Your task to perform on an android device: What's the weather? Image 0: 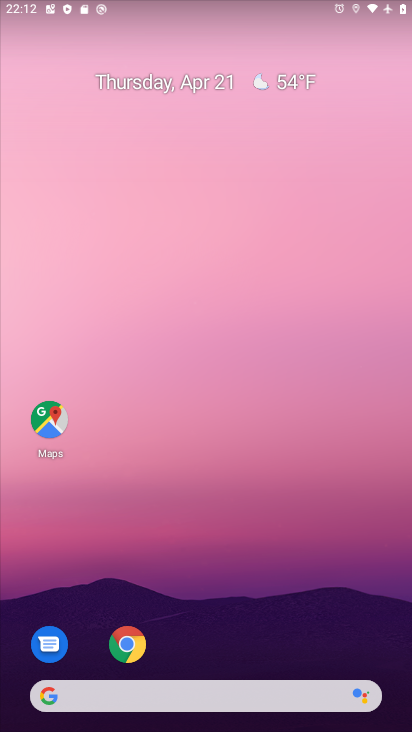
Step 0: click (132, 647)
Your task to perform on an android device: What's the weather? Image 1: 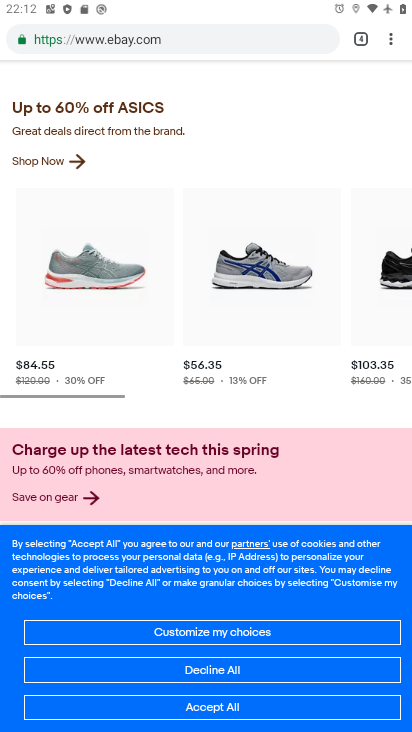
Step 1: click (363, 36)
Your task to perform on an android device: What's the weather? Image 2: 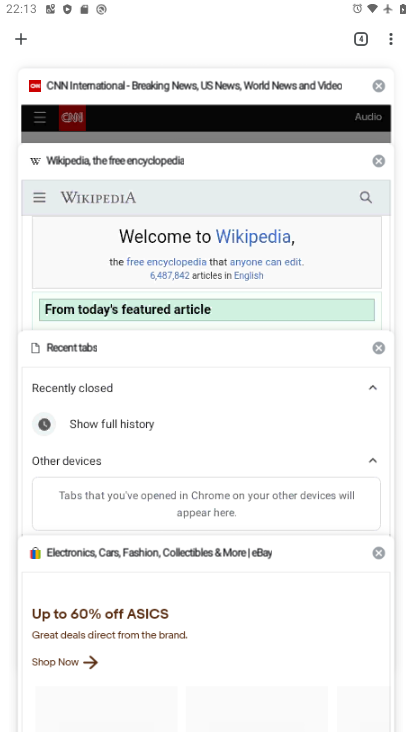
Step 2: click (18, 41)
Your task to perform on an android device: What's the weather? Image 3: 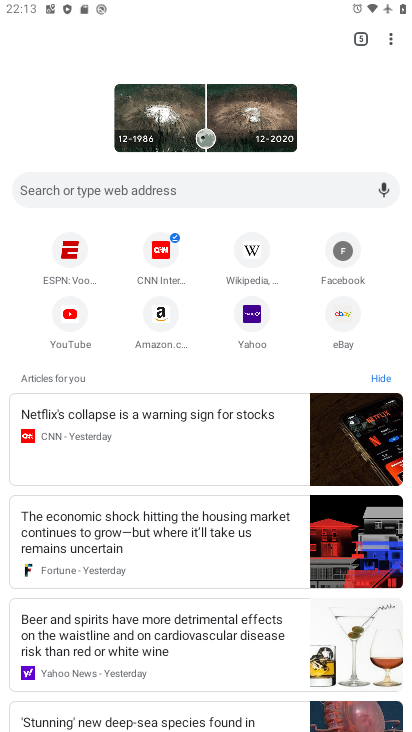
Step 3: click (117, 194)
Your task to perform on an android device: What's the weather? Image 4: 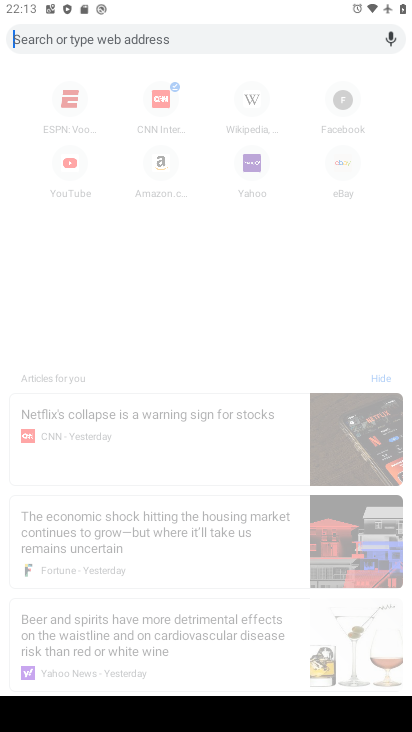
Step 4: type "whats the weather"
Your task to perform on an android device: What's the weather? Image 5: 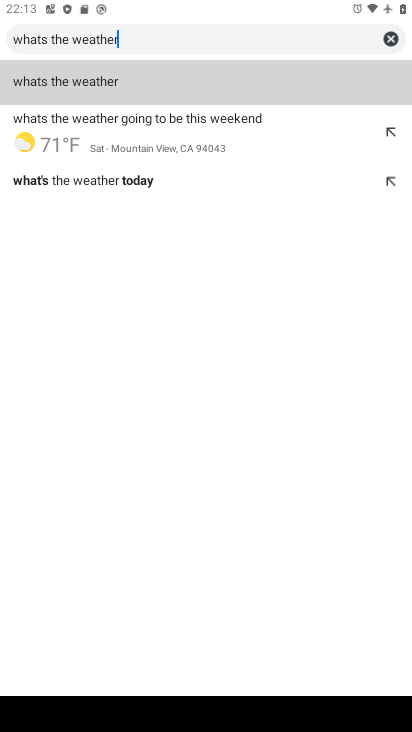
Step 5: click (104, 80)
Your task to perform on an android device: What's the weather? Image 6: 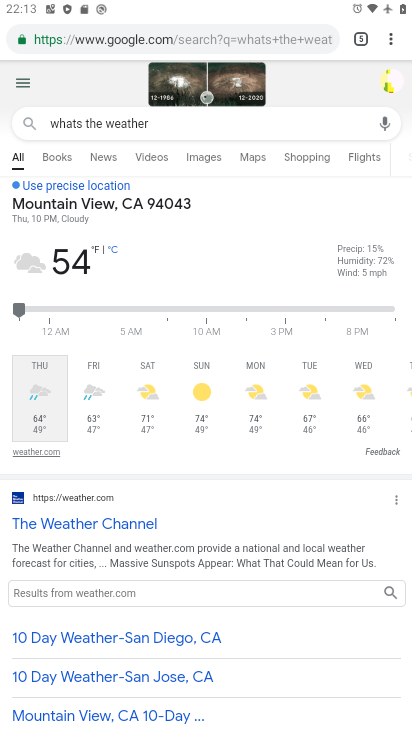
Step 6: task complete